Your task to perform on an android device: open a new tab in the chrome app Image 0: 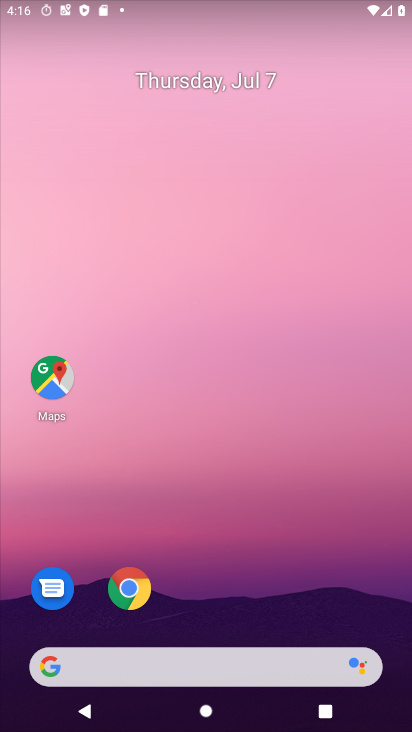
Step 0: drag from (206, 613) to (345, 128)
Your task to perform on an android device: open a new tab in the chrome app Image 1: 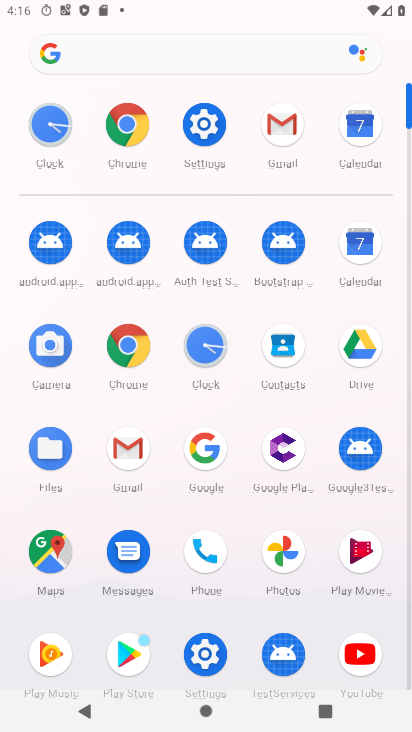
Step 1: click (123, 114)
Your task to perform on an android device: open a new tab in the chrome app Image 2: 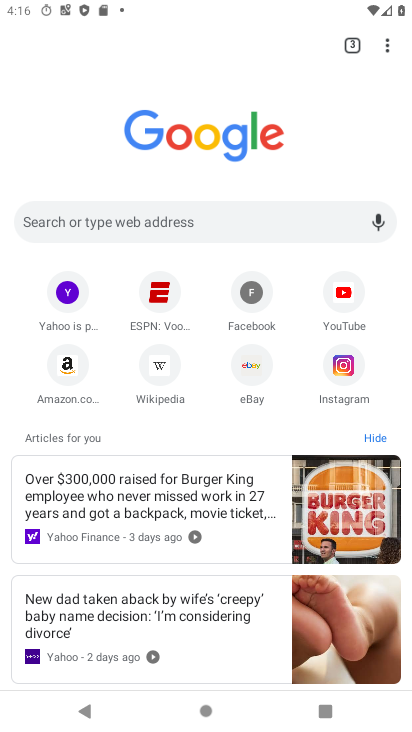
Step 2: click (361, 43)
Your task to perform on an android device: open a new tab in the chrome app Image 3: 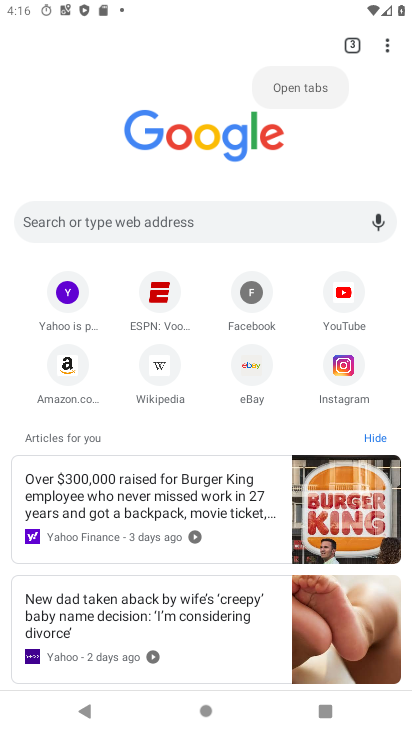
Step 3: click (270, 94)
Your task to perform on an android device: open a new tab in the chrome app Image 4: 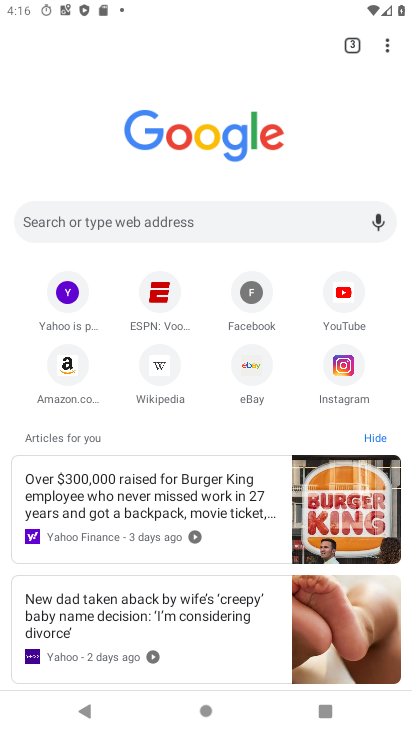
Step 4: click (352, 49)
Your task to perform on an android device: open a new tab in the chrome app Image 5: 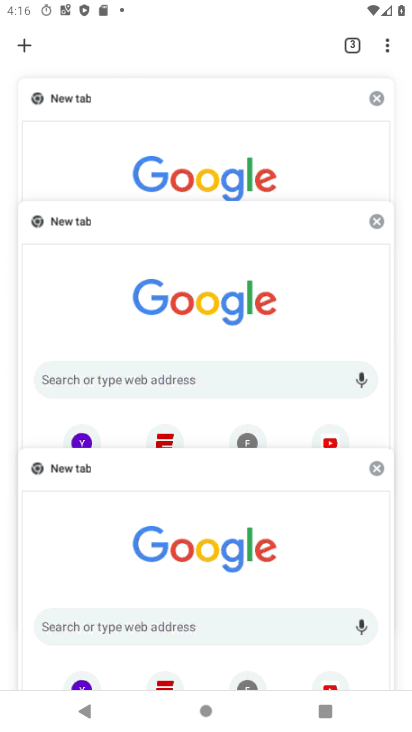
Step 5: click (27, 46)
Your task to perform on an android device: open a new tab in the chrome app Image 6: 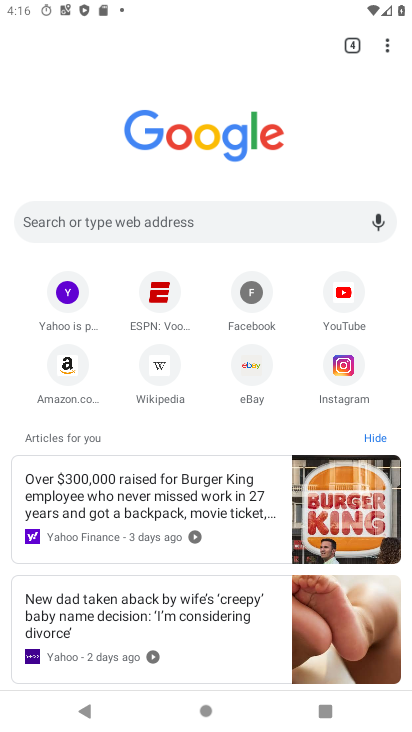
Step 6: task complete